Your task to perform on an android device: toggle improve location accuracy Image 0: 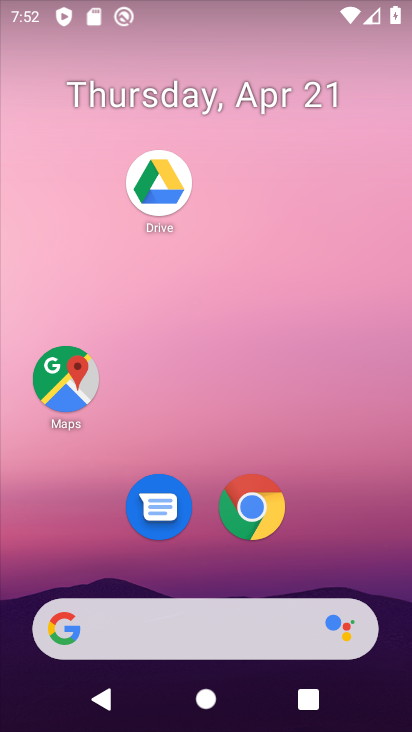
Step 0: drag from (365, 543) to (368, 140)
Your task to perform on an android device: toggle improve location accuracy Image 1: 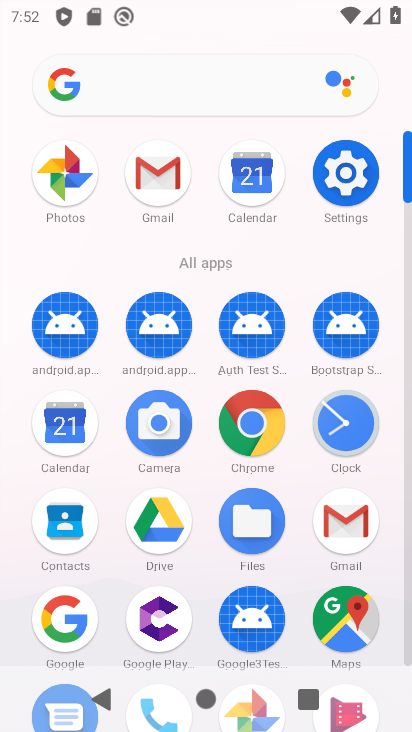
Step 1: click (355, 189)
Your task to perform on an android device: toggle improve location accuracy Image 2: 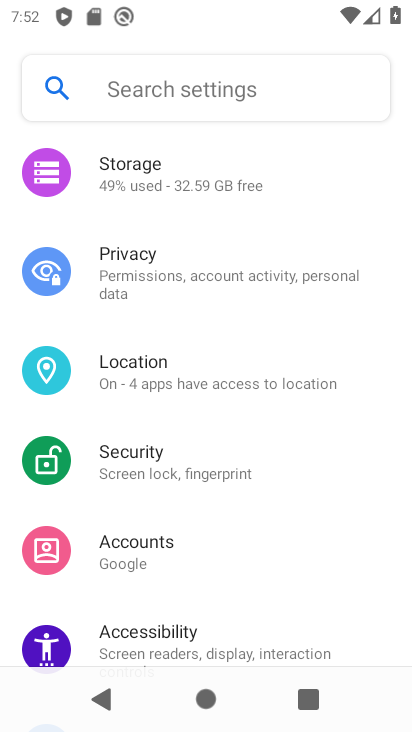
Step 2: drag from (360, 543) to (375, 368)
Your task to perform on an android device: toggle improve location accuracy Image 3: 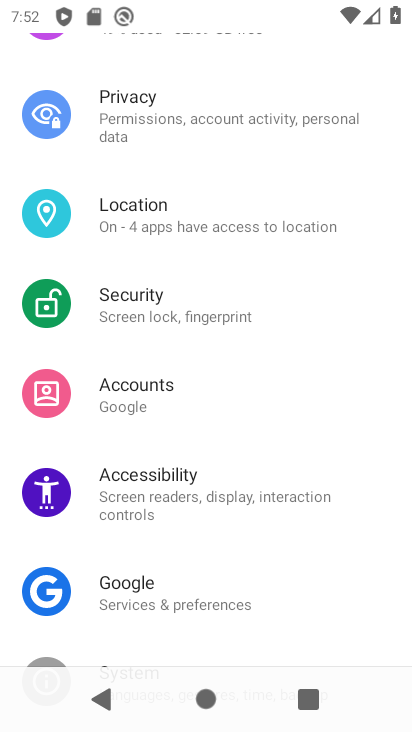
Step 3: drag from (362, 590) to (364, 327)
Your task to perform on an android device: toggle improve location accuracy Image 4: 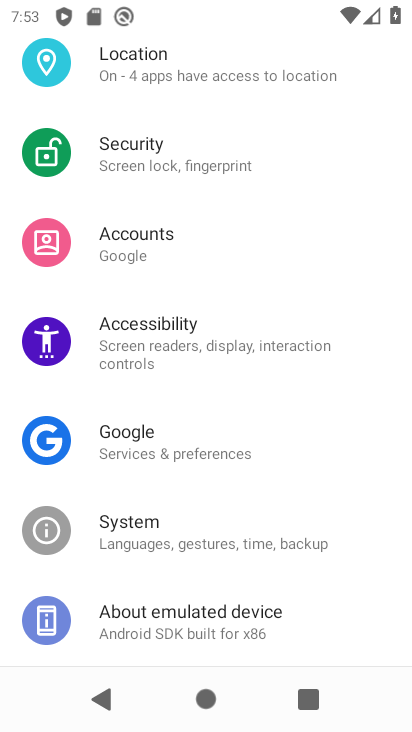
Step 4: drag from (364, 278) to (363, 400)
Your task to perform on an android device: toggle improve location accuracy Image 5: 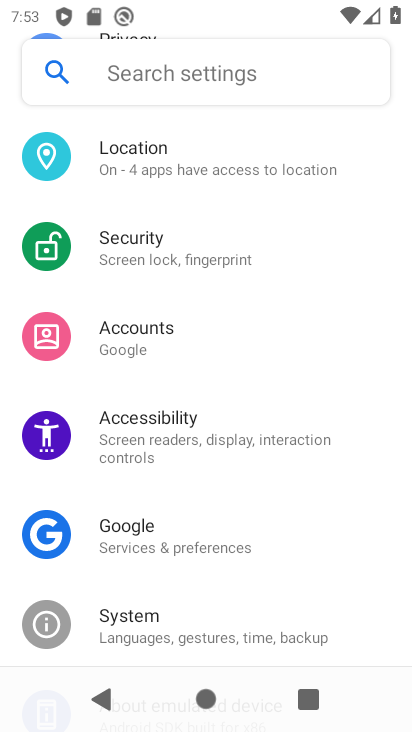
Step 5: drag from (369, 262) to (369, 398)
Your task to perform on an android device: toggle improve location accuracy Image 6: 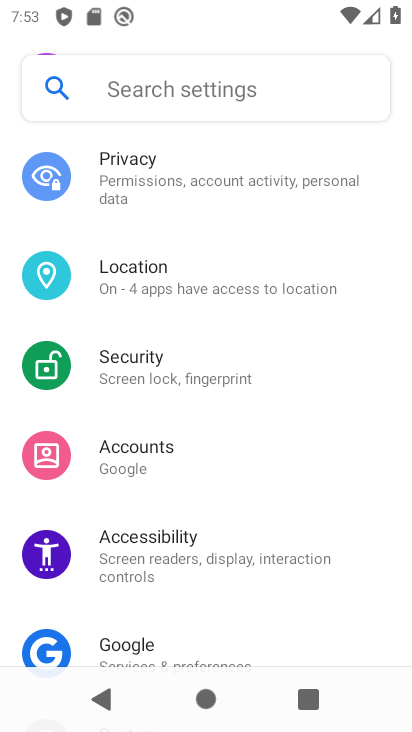
Step 6: drag from (371, 270) to (366, 395)
Your task to perform on an android device: toggle improve location accuracy Image 7: 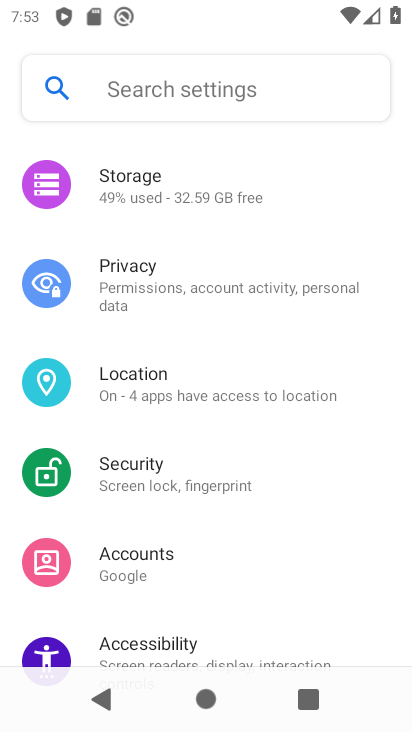
Step 7: click (324, 394)
Your task to perform on an android device: toggle improve location accuracy Image 8: 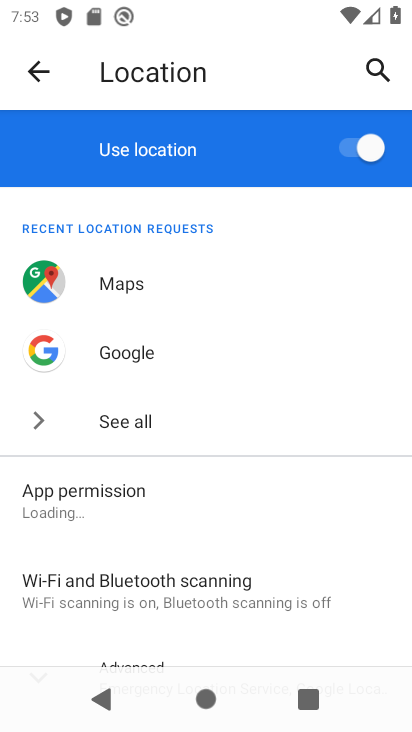
Step 8: drag from (343, 523) to (352, 318)
Your task to perform on an android device: toggle improve location accuracy Image 9: 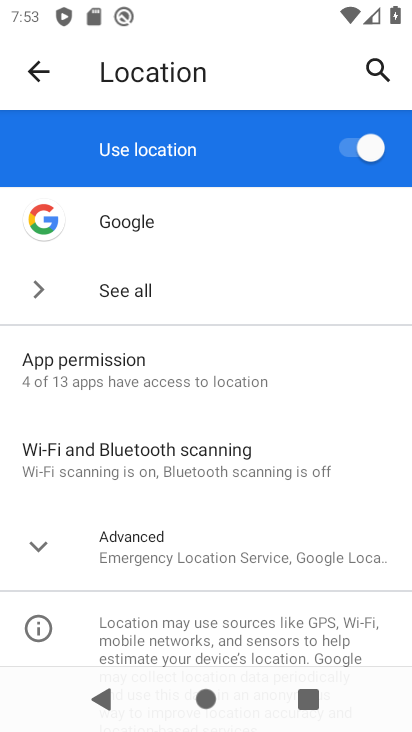
Step 9: drag from (353, 589) to (365, 366)
Your task to perform on an android device: toggle improve location accuracy Image 10: 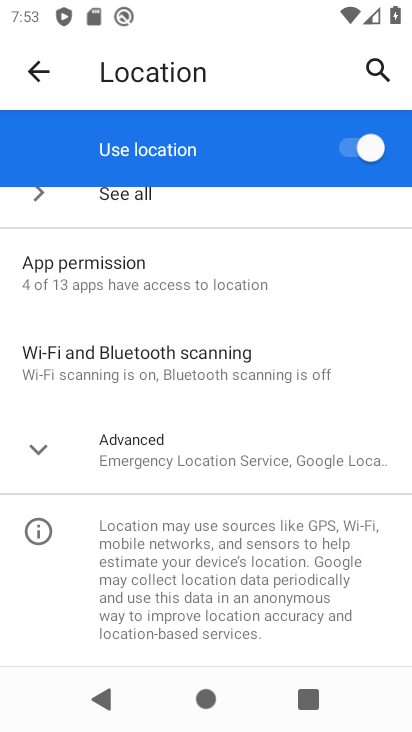
Step 10: click (340, 463)
Your task to perform on an android device: toggle improve location accuracy Image 11: 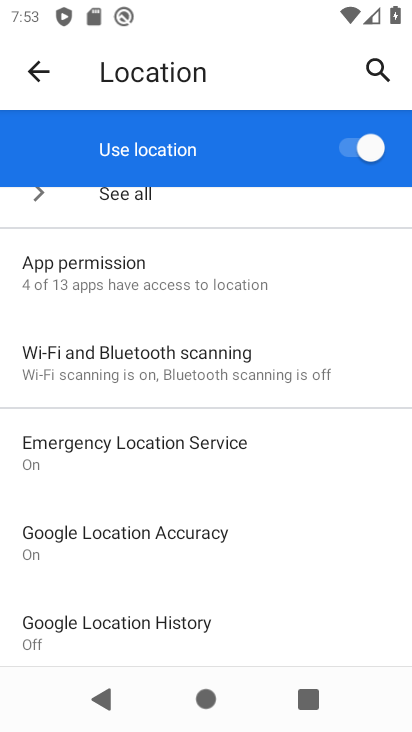
Step 11: drag from (347, 591) to (351, 444)
Your task to perform on an android device: toggle improve location accuracy Image 12: 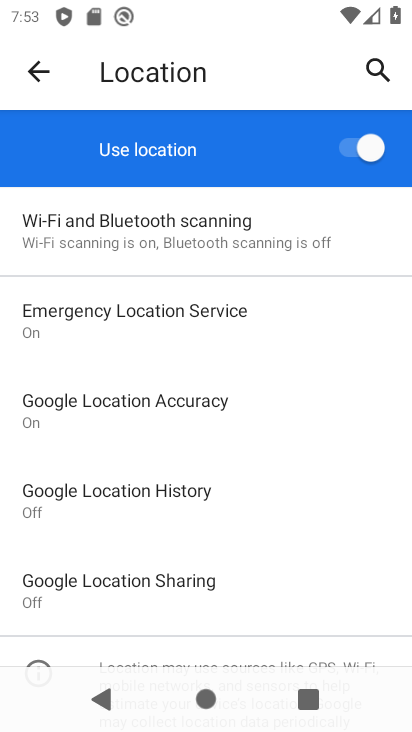
Step 12: drag from (345, 571) to (342, 390)
Your task to perform on an android device: toggle improve location accuracy Image 13: 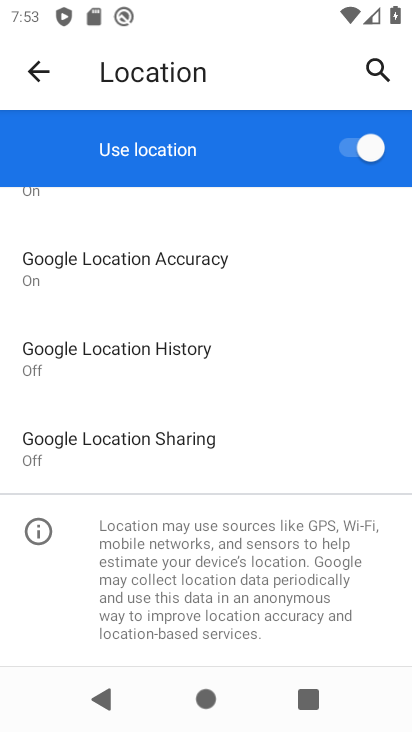
Step 13: click (214, 271)
Your task to perform on an android device: toggle improve location accuracy Image 14: 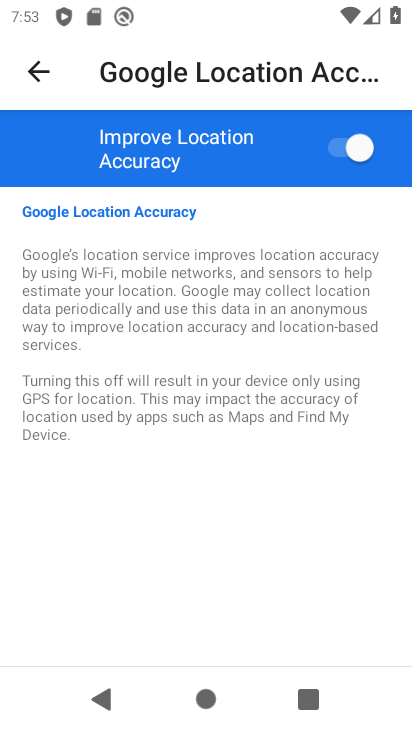
Step 14: click (349, 143)
Your task to perform on an android device: toggle improve location accuracy Image 15: 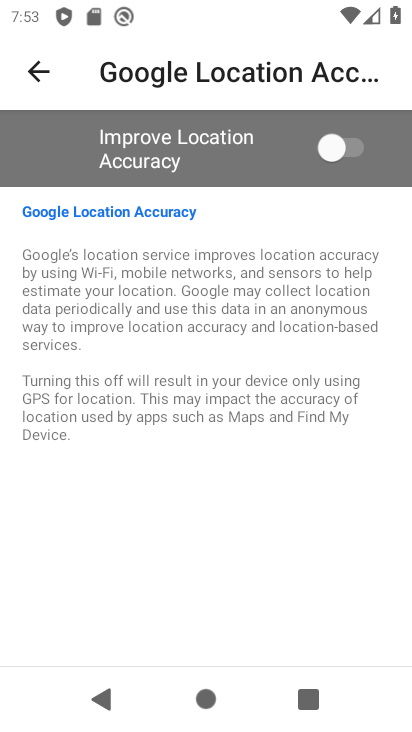
Step 15: task complete